Your task to perform on an android device: Open Youtube and go to the subscriptions tab Image 0: 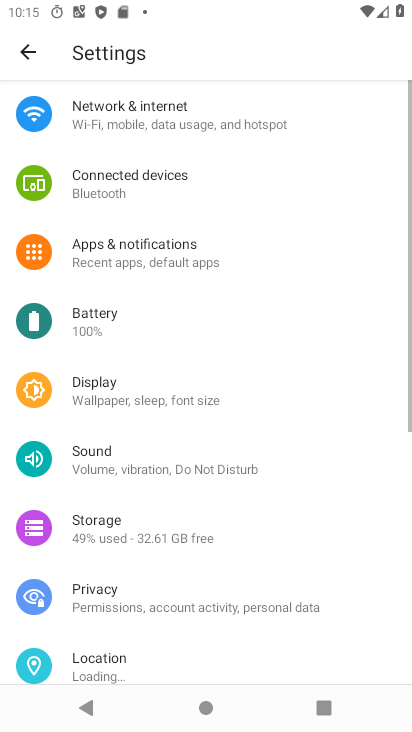
Step 0: drag from (187, 585) to (271, 129)
Your task to perform on an android device: Open Youtube and go to the subscriptions tab Image 1: 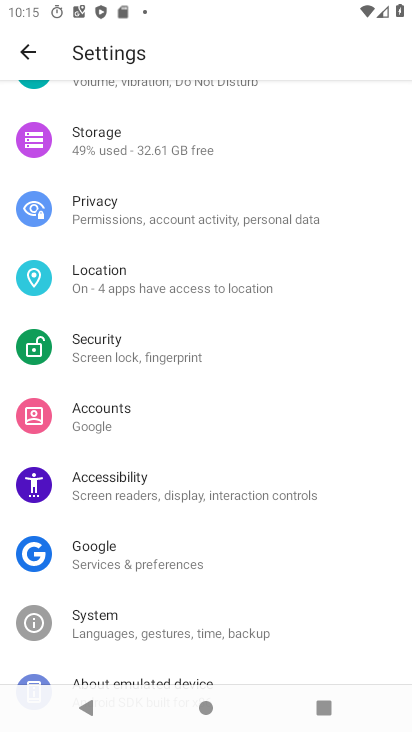
Step 1: press home button
Your task to perform on an android device: Open Youtube and go to the subscriptions tab Image 2: 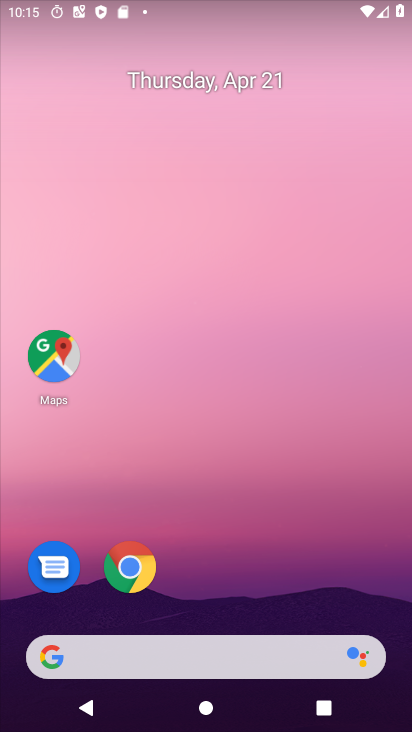
Step 2: drag from (181, 614) to (240, 88)
Your task to perform on an android device: Open Youtube and go to the subscriptions tab Image 3: 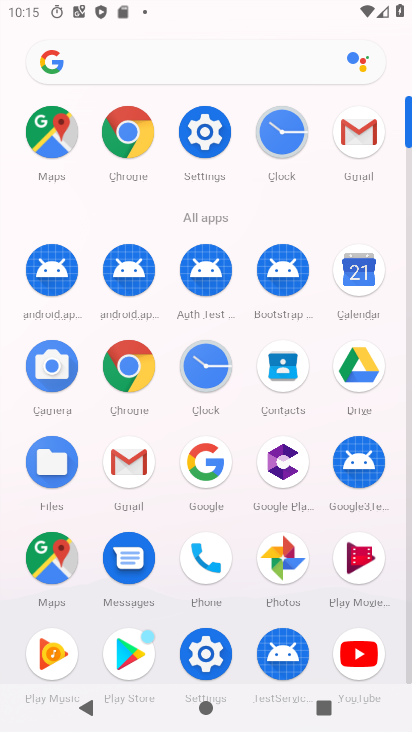
Step 3: click (364, 640)
Your task to perform on an android device: Open Youtube and go to the subscriptions tab Image 4: 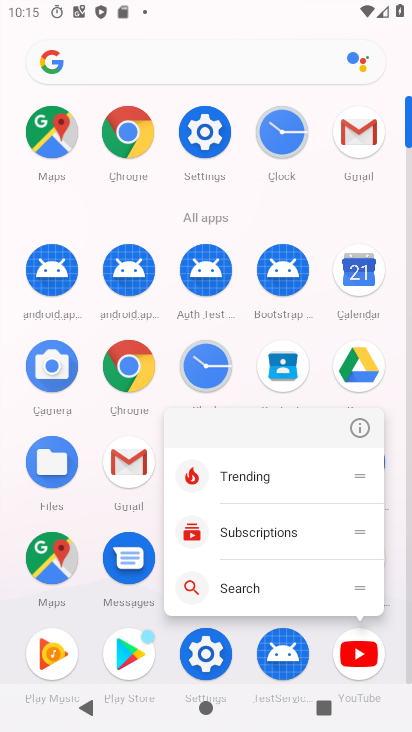
Step 4: click (359, 653)
Your task to perform on an android device: Open Youtube and go to the subscriptions tab Image 5: 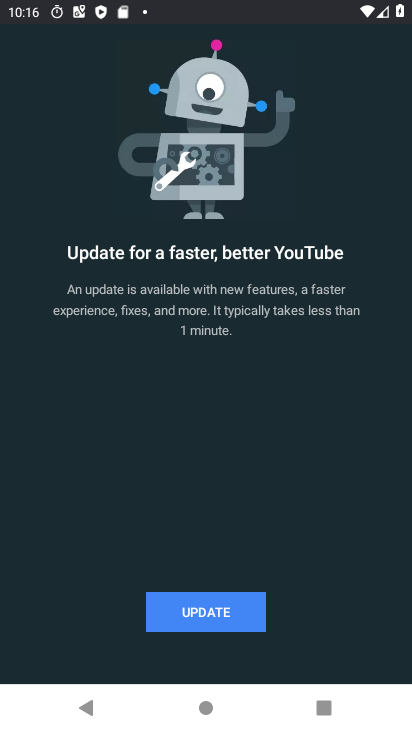
Step 5: click (195, 619)
Your task to perform on an android device: Open Youtube and go to the subscriptions tab Image 6: 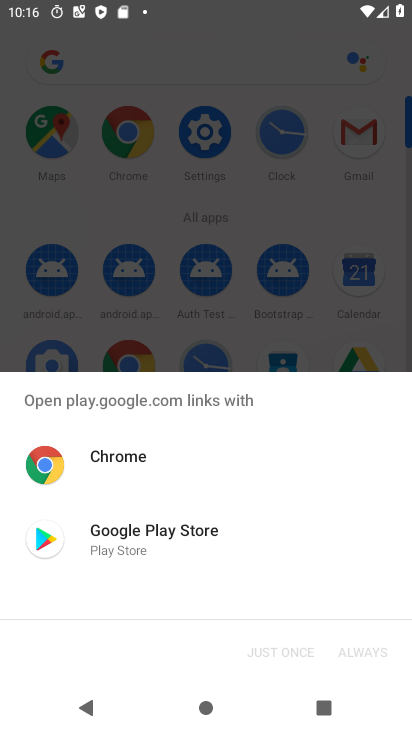
Step 6: click (216, 545)
Your task to perform on an android device: Open Youtube and go to the subscriptions tab Image 7: 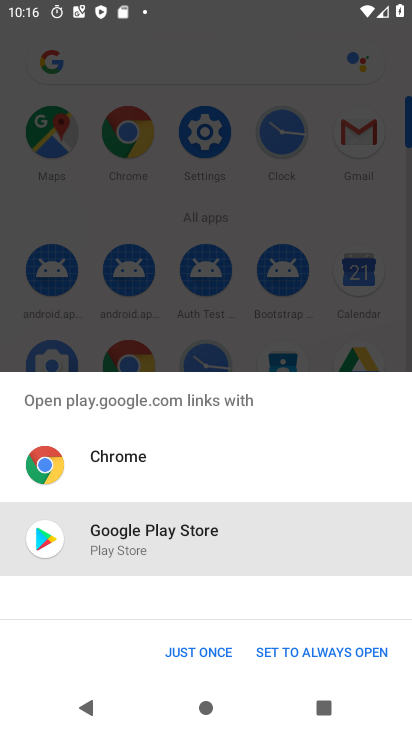
Step 7: click (187, 650)
Your task to perform on an android device: Open Youtube and go to the subscriptions tab Image 8: 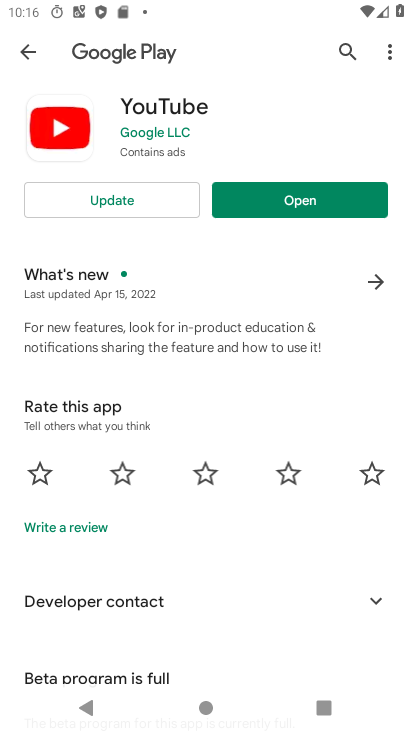
Step 8: click (166, 198)
Your task to perform on an android device: Open Youtube and go to the subscriptions tab Image 9: 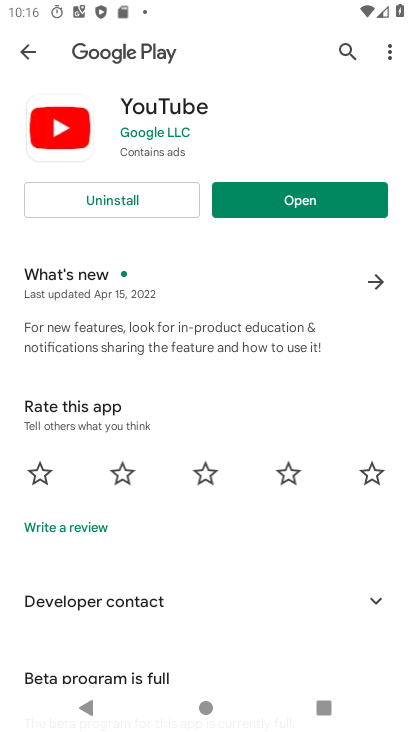
Step 9: click (285, 199)
Your task to perform on an android device: Open Youtube and go to the subscriptions tab Image 10: 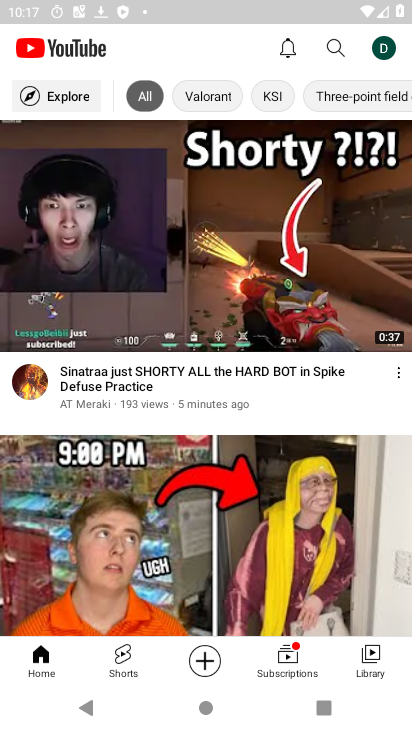
Step 10: click (279, 657)
Your task to perform on an android device: Open Youtube and go to the subscriptions tab Image 11: 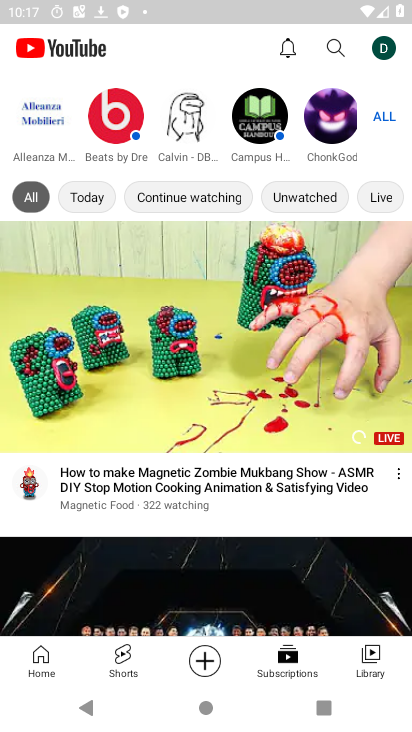
Step 11: task complete